Your task to perform on an android device: Is it going to rain this weekend? Image 0: 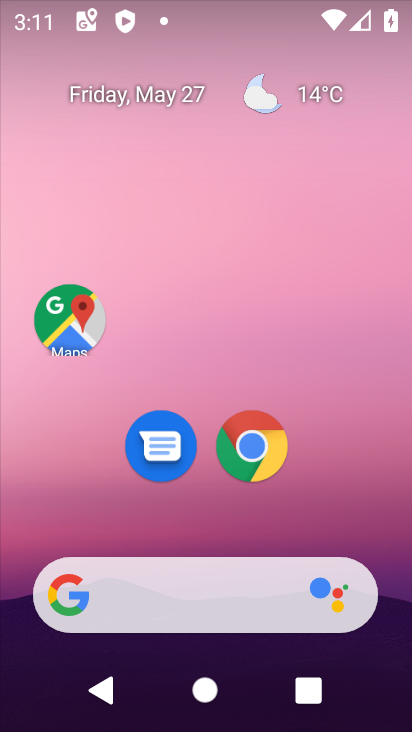
Step 0: press home button
Your task to perform on an android device: Is it going to rain this weekend? Image 1: 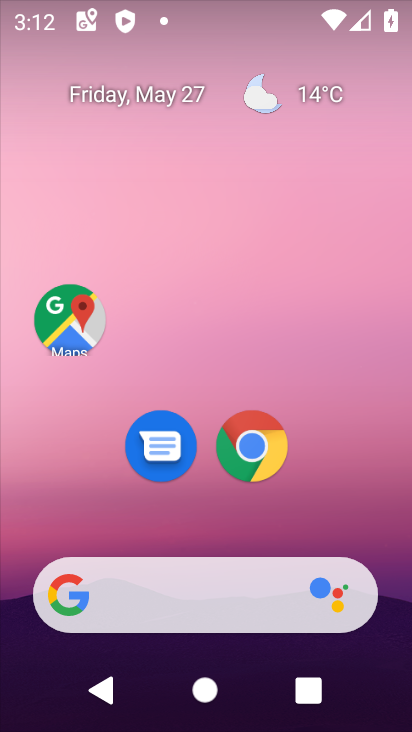
Step 1: click (72, 601)
Your task to perform on an android device: Is it going to rain this weekend? Image 2: 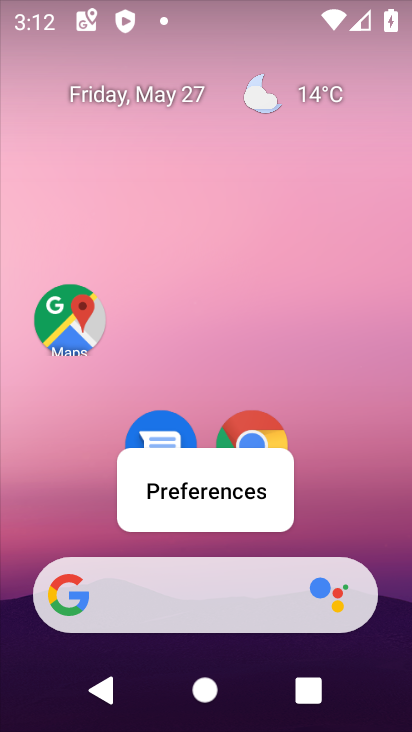
Step 2: click (75, 596)
Your task to perform on an android device: Is it going to rain this weekend? Image 3: 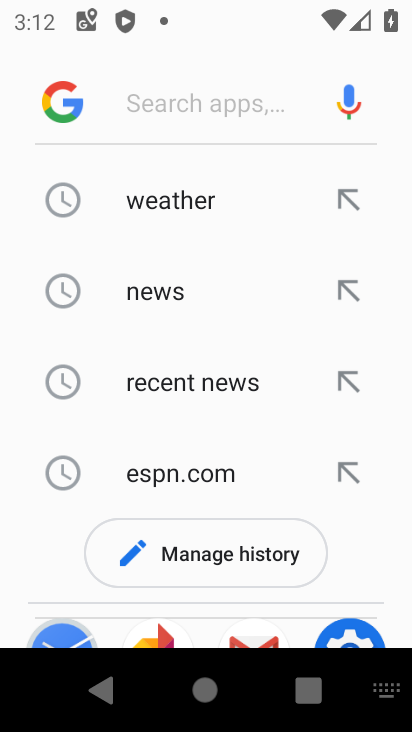
Step 3: click (186, 198)
Your task to perform on an android device: Is it going to rain this weekend? Image 4: 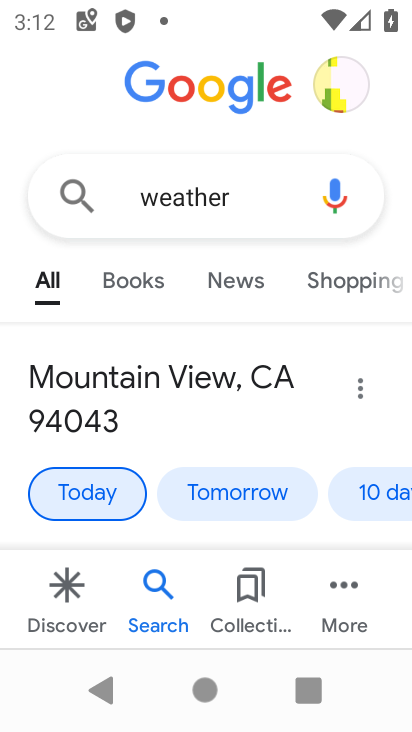
Step 4: click (371, 489)
Your task to perform on an android device: Is it going to rain this weekend? Image 5: 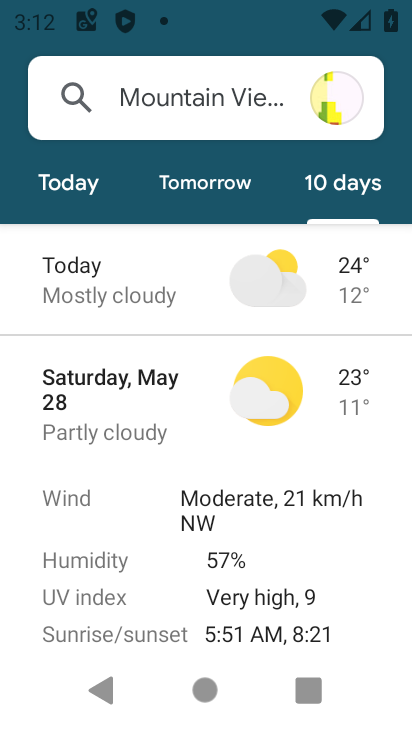
Step 5: task complete